Your task to perform on an android device: Open maps Image 0: 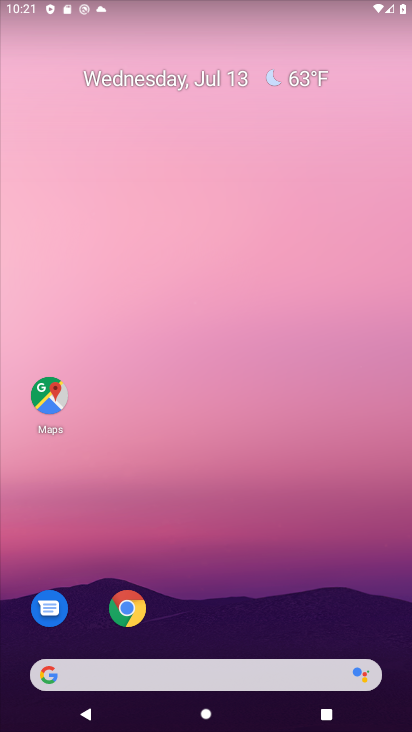
Step 0: drag from (203, 644) to (299, 67)
Your task to perform on an android device: Open maps Image 1: 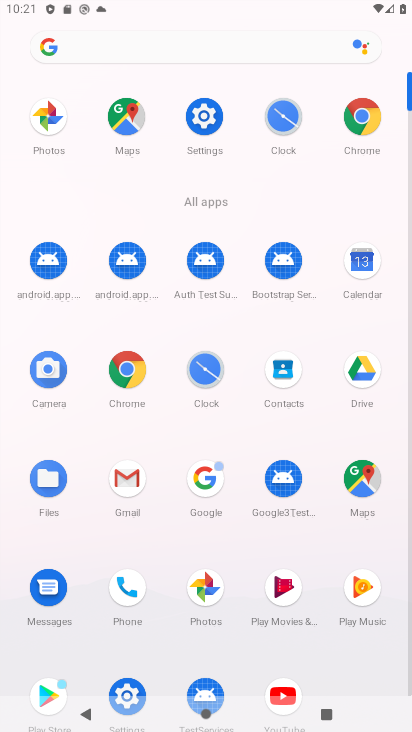
Step 1: click (353, 469)
Your task to perform on an android device: Open maps Image 2: 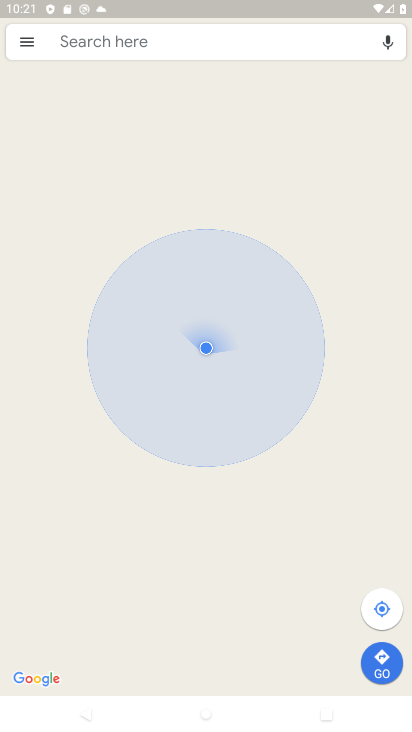
Step 2: task complete